Your task to perform on an android device: Open calendar and show me the third week of next month Image 0: 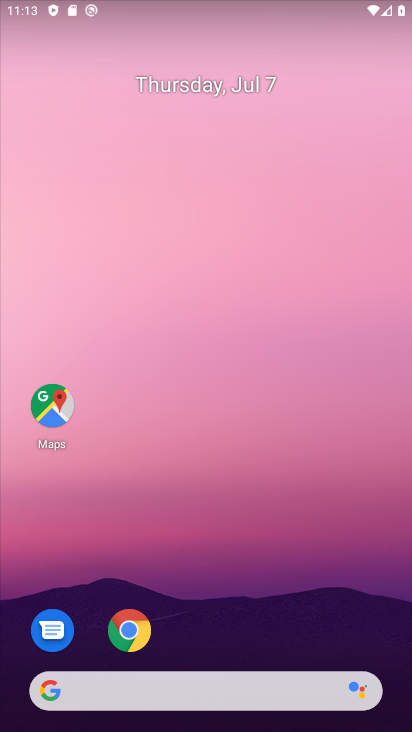
Step 0: drag from (339, 637) to (297, 88)
Your task to perform on an android device: Open calendar and show me the third week of next month Image 1: 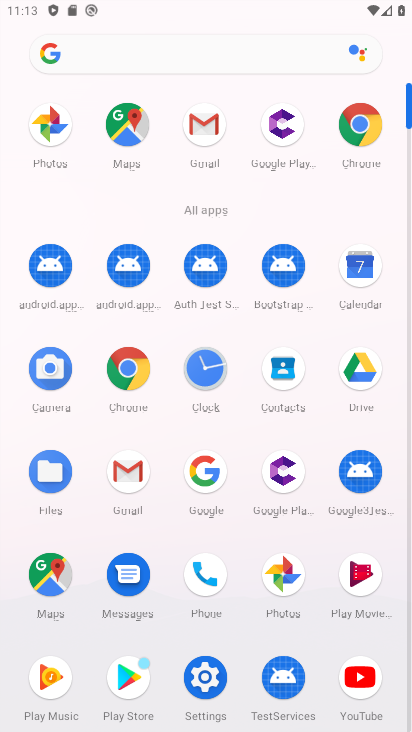
Step 1: click (362, 265)
Your task to perform on an android device: Open calendar and show me the third week of next month Image 2: 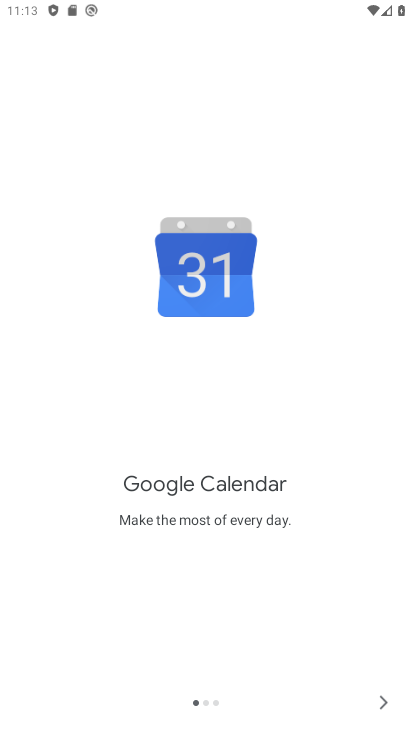
Step 2: click (379, 703)
Your task to perform on an android device: Open calendar and show me the third week of next month Image 3: 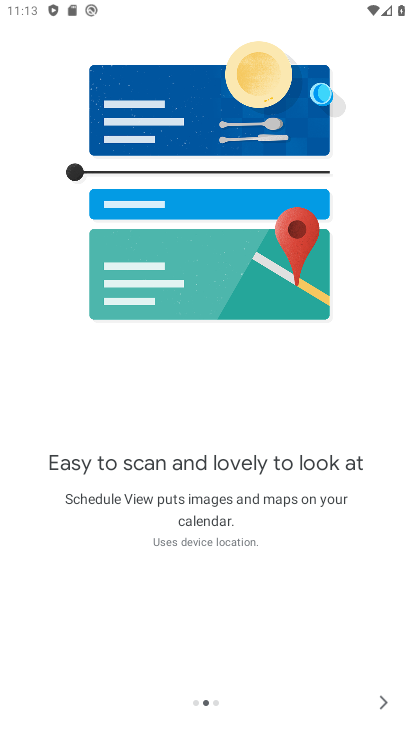
Step 3: click (379, 703)
Your task to perform on an android device: Open calendar and show me the third week of next month Image 4: 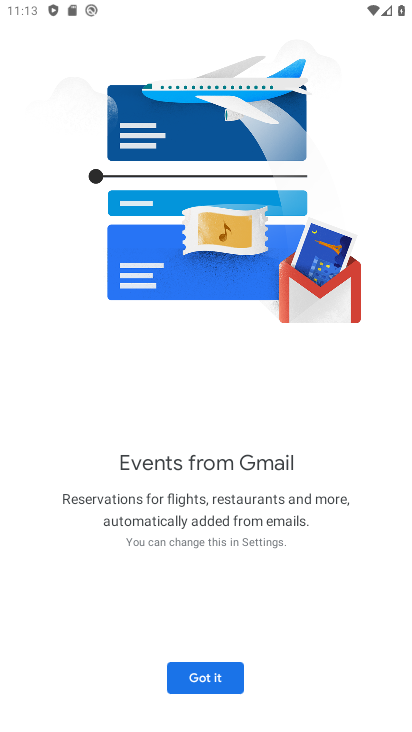
Step 4: click (206, 680)
Your task to perform on an android device: Open calendar and show me the third week of next month Image 5: 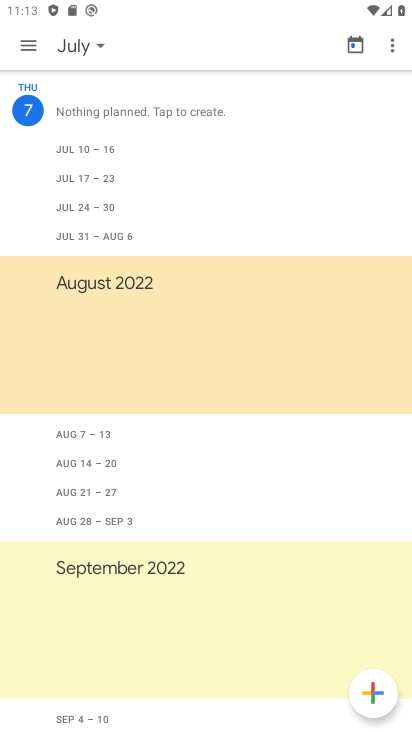
Step 5: click (27, 41)
Your task to perform on an android device: Open calendar and show me the third week of next month Image 6: 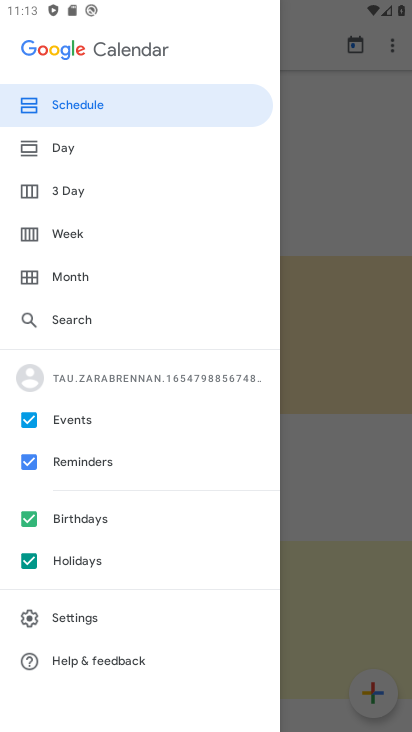
Step 6: click (67, 238)
Your task to perform on an android device: Open calendar and show me the third week of next month Image 7: 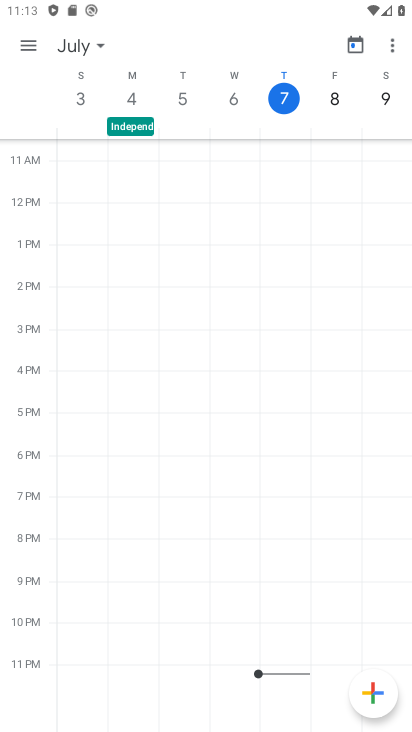
Step 7: click (100, 45)
Your task to perform on an android device: Open calendar and show me the third week of next month Image 8: 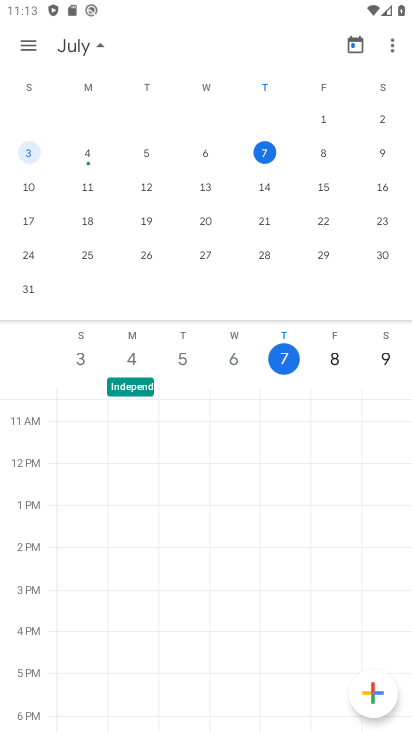
Step 8: drag from (380, 229) to (94, 211)
Your task to perform on an android device: Open calendar and show me the third week of next month Image 9: 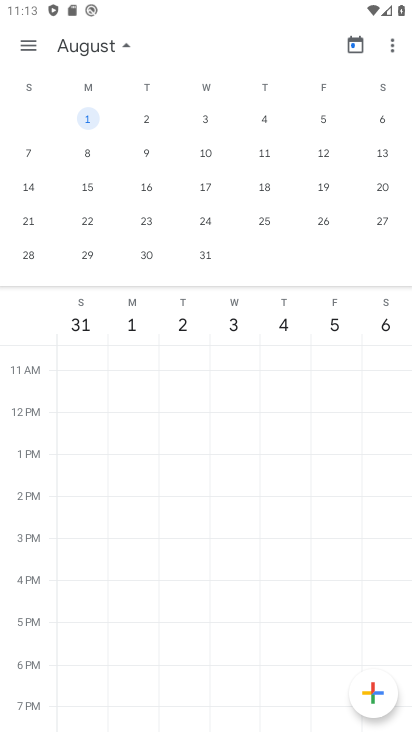
Step 9: click (26, 227)
Your task to perform on an android device: Open calendar and show me the third week of next month Image 10: 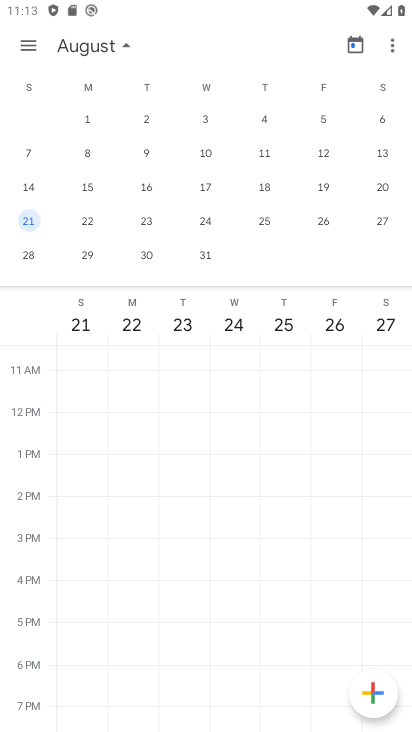
Step 10: task complete